Your task to perform on an android device: check the backup settings in the google photos Image 0: 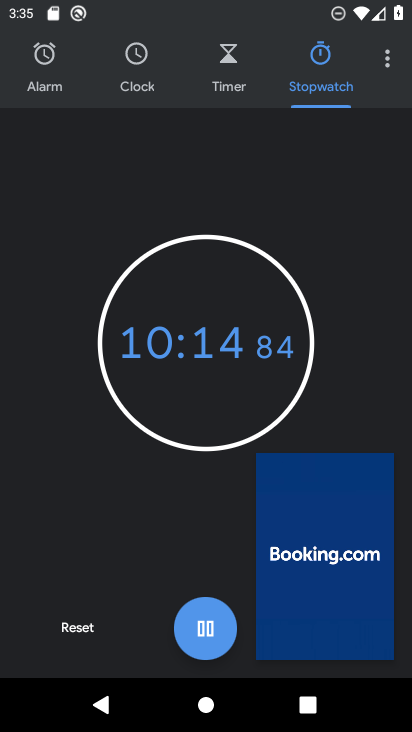
Step 0: press back button
Your task to perform on an android device: check the backup settings in the google photos Image 1: 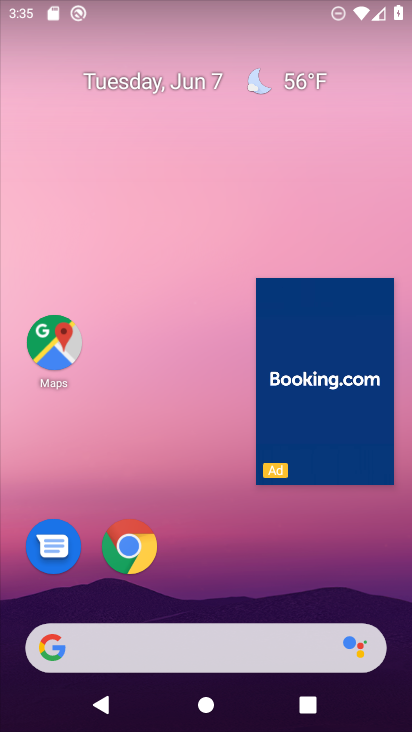
Step 1: click (334, 313)
Your task to perform on an android device: check the backup settings in the google photos Image 2: 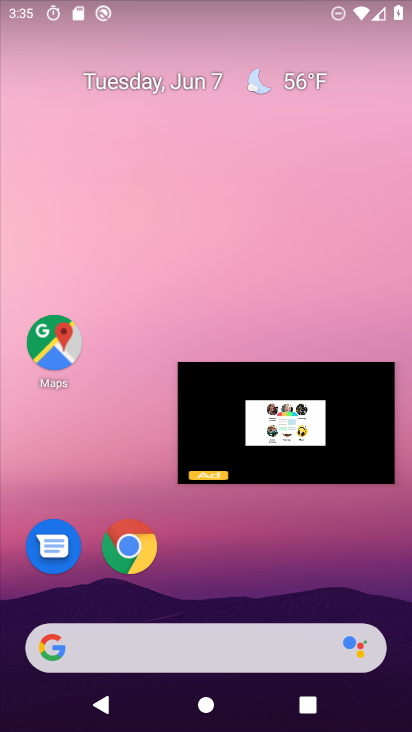
Step 2: click (381, 378)
Your task to perform on an android device: check the backup settings in the google photos Image 3: 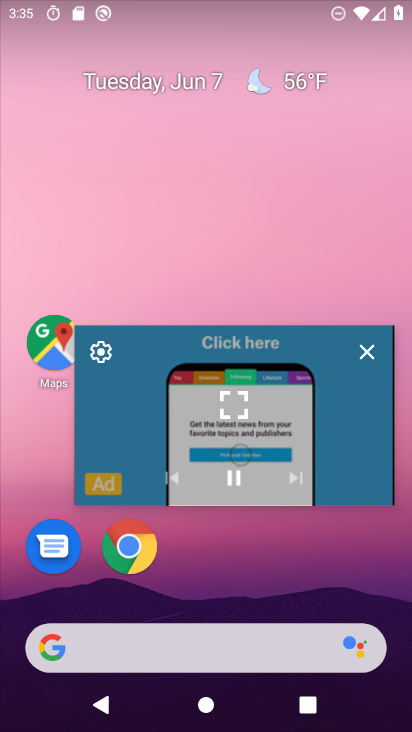
Step 3: click (372, 345)
Your task to perform on an android device: check the backup settings in the google photos Image 4: 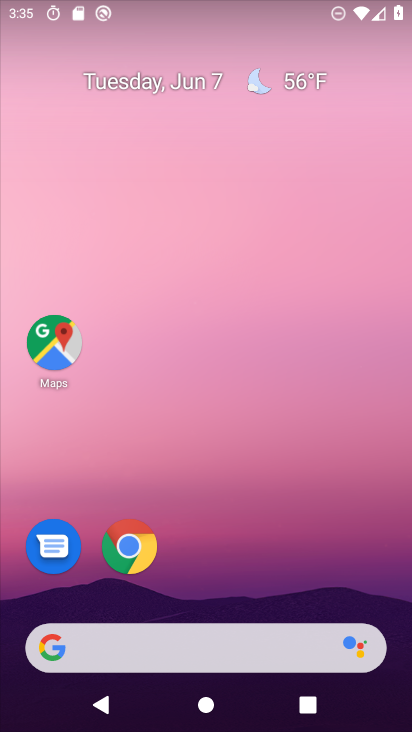
Step 4: drag from (268, 530) to (245, 67)
Your task to perform on an android device: check the backup settings in the google photos Image 5: 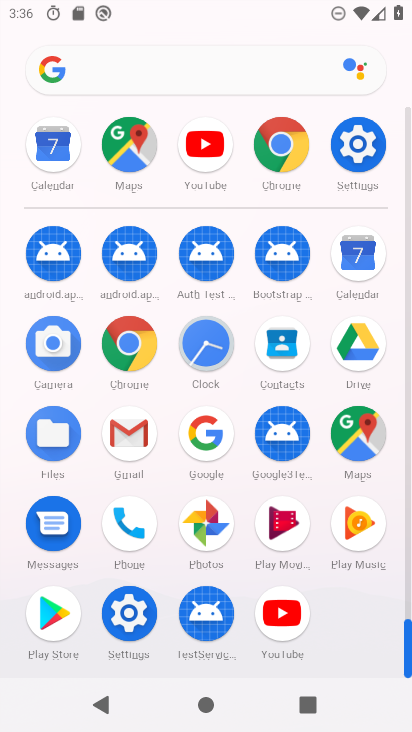
Step 5: drag from (9, 511) to (19, 156)
Your task to perform on an android device: check the backup settings in the google photos Image 6: 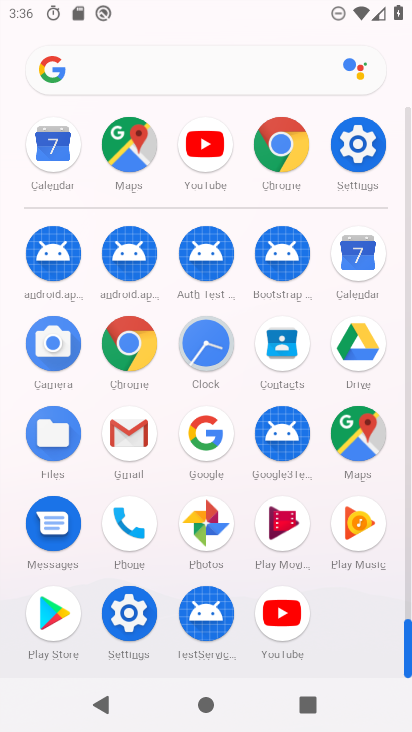
Step 6: click (200, 520)
Your task to perform on an android device: check the backup settings in the google photos Image 7: 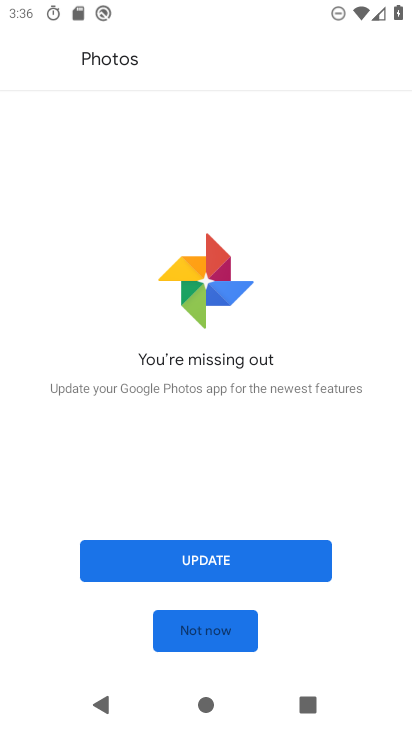
Step 7: click (212, 544)
Your task to perform on an android device: check the backup settings in the google photos Image 8: 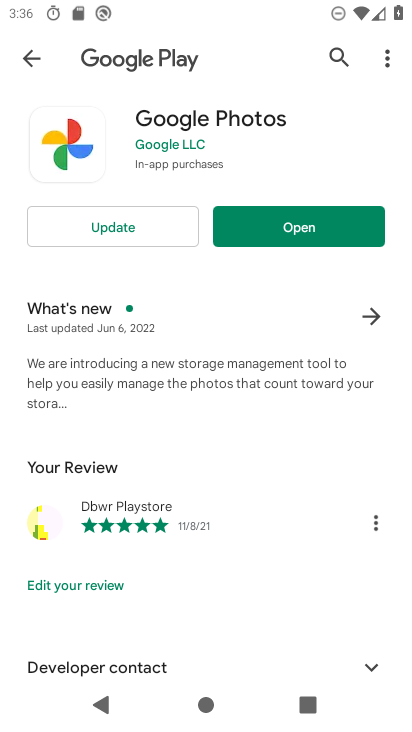
Step 8: click (137, 230)
Your task to perform on an android device: check the backup settings in the google photos Image 9: 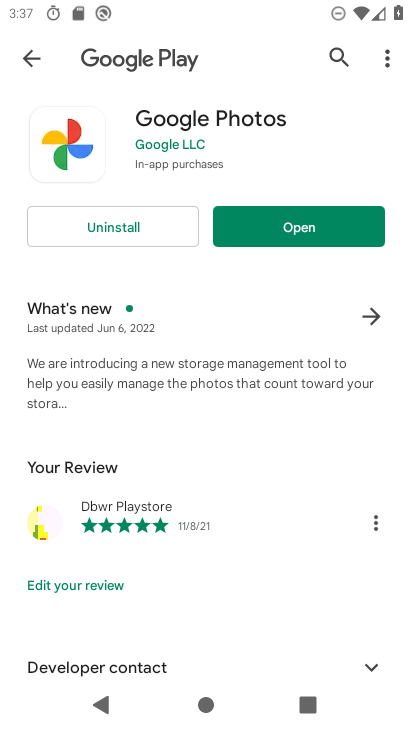
Step 9: click (299, 224)
Your task to perform on an android device: check the backup settings in the google photos Image 10: 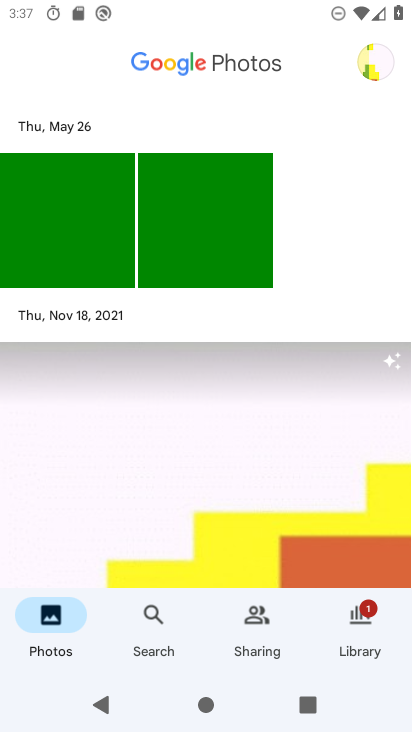
Step 10: click (375, 61)
Your task to perform on an android device: check the backup settings in the google photos Image 11: 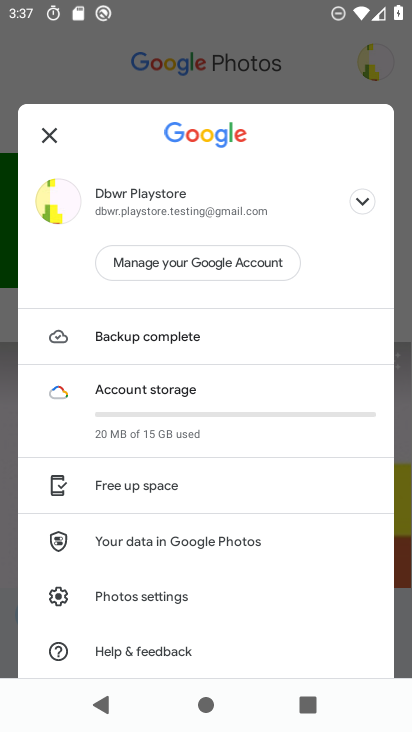
Step 11: drag from (178, 627) to (276, 337)
Your task to perform on an android device: check the backup settings in the google photos Image 12: 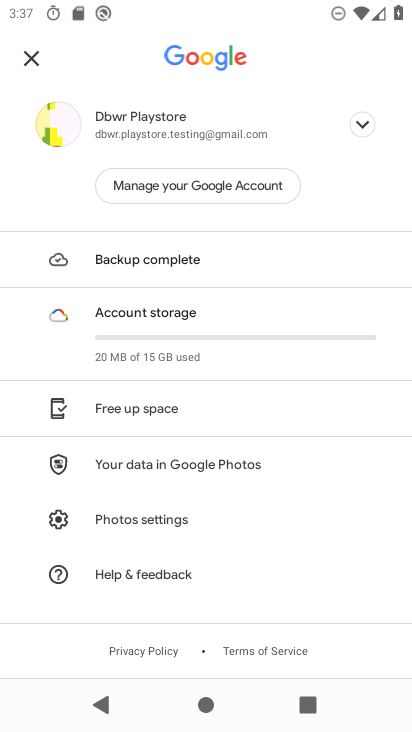
Step 12: click (142, 521)
Your task to perform on an android device: check the backup settings in the google photos Image 13: 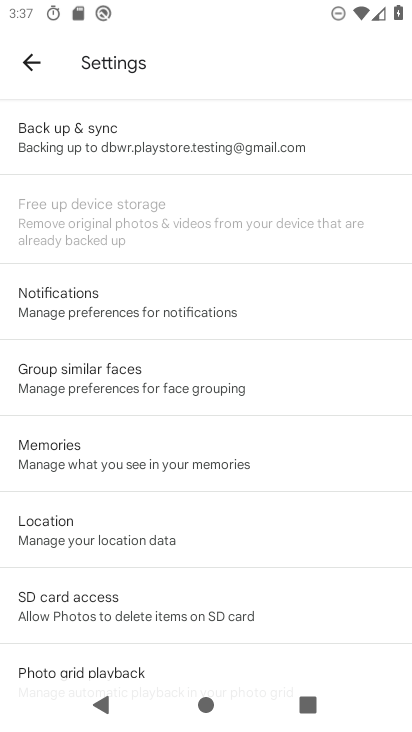
Step 13: click (168, 119)
Your task to perform on an android device: check the backup settings in the google photos Image 14: 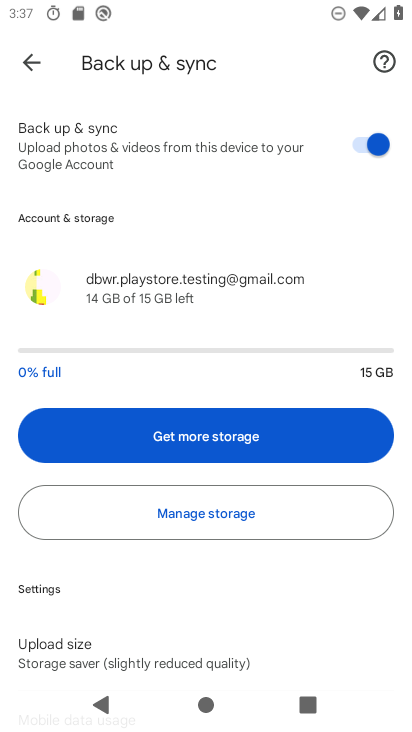
Step 14: drag from (215, 584) to (260, 108)
Your task to perform on an android device: check the backup settings in the google photos Image 15: 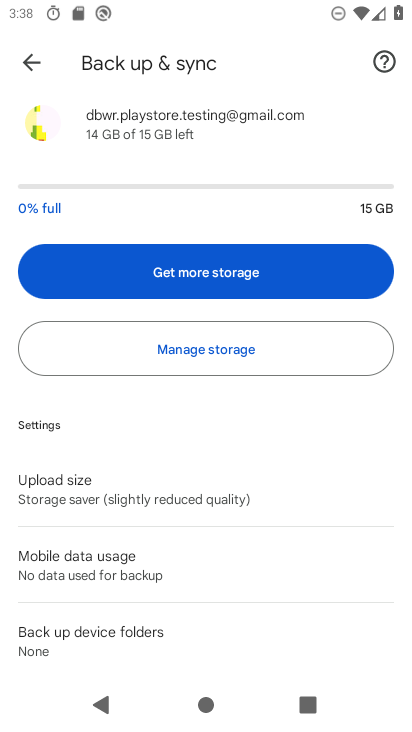
Step 15: click (169, 494)
Your task to perform on an android device: check the backup settings in the google photos Image 16: 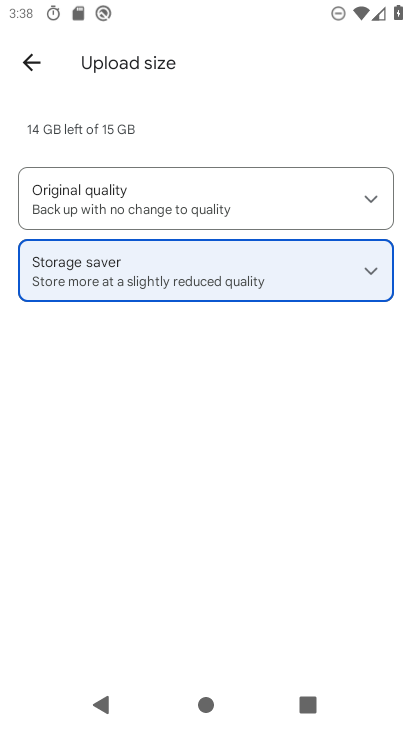
Step 16: click (167, 211)
Your task to perform on an android device: check the backup settings in the google photos Image 17: 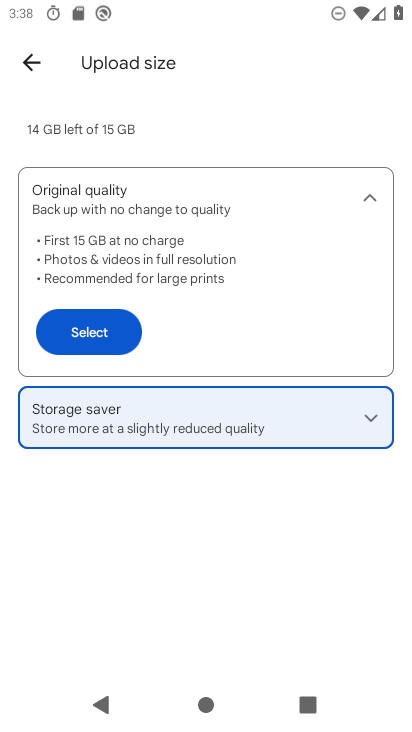
Step 17: click (111, 315)
Your task to perform on an android device: check the backup settings in the google photos Image 18: 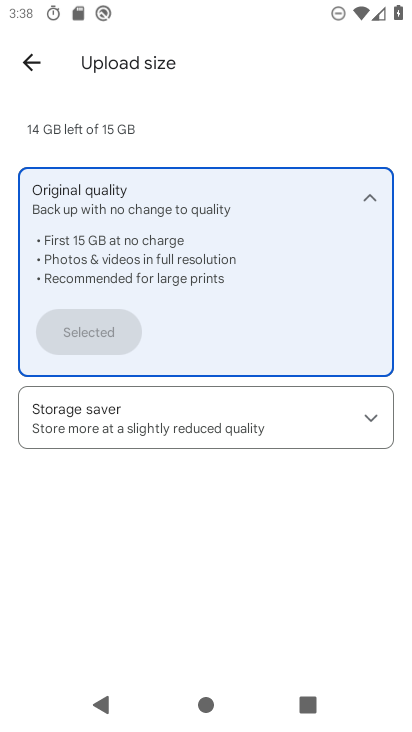
Step 18: task complete